Your task to perform on an android device: Go to calendar. Show me events next week Image 0: 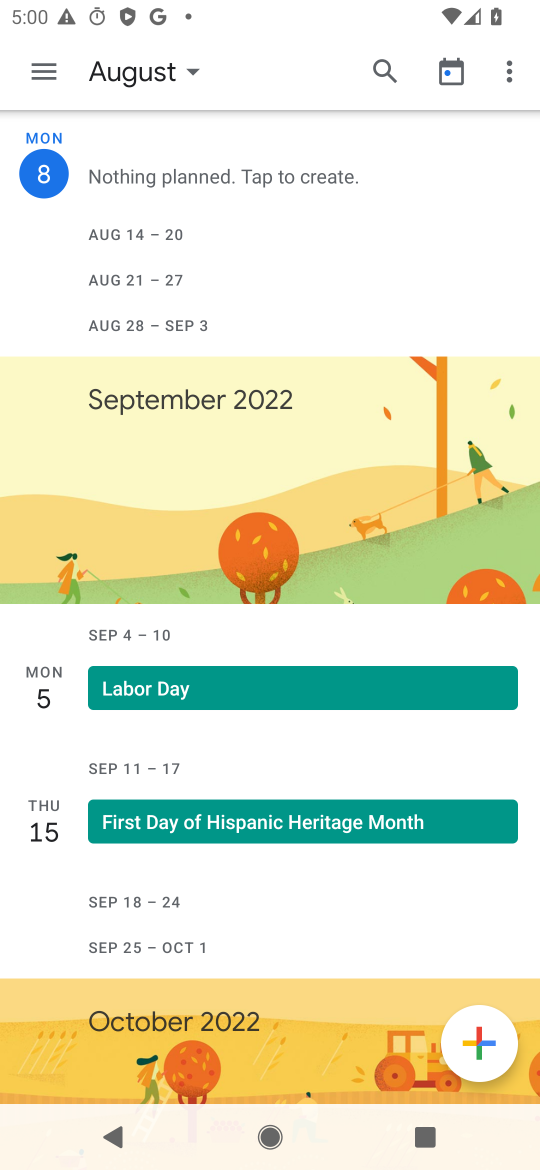
Step 0: click (149, 79)
Your task to perform on an android device: Go to calendar. Show me events next week Image 1: 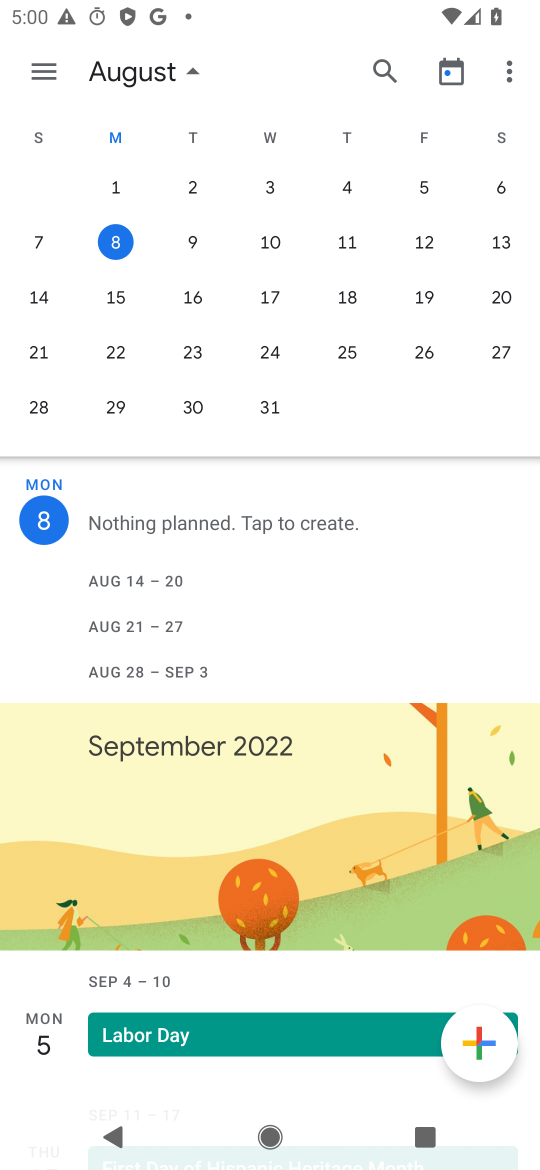
Step 1: click (33, 294)
Your task to perform on an android device: Go to calendar. Show me events next week Image 2: 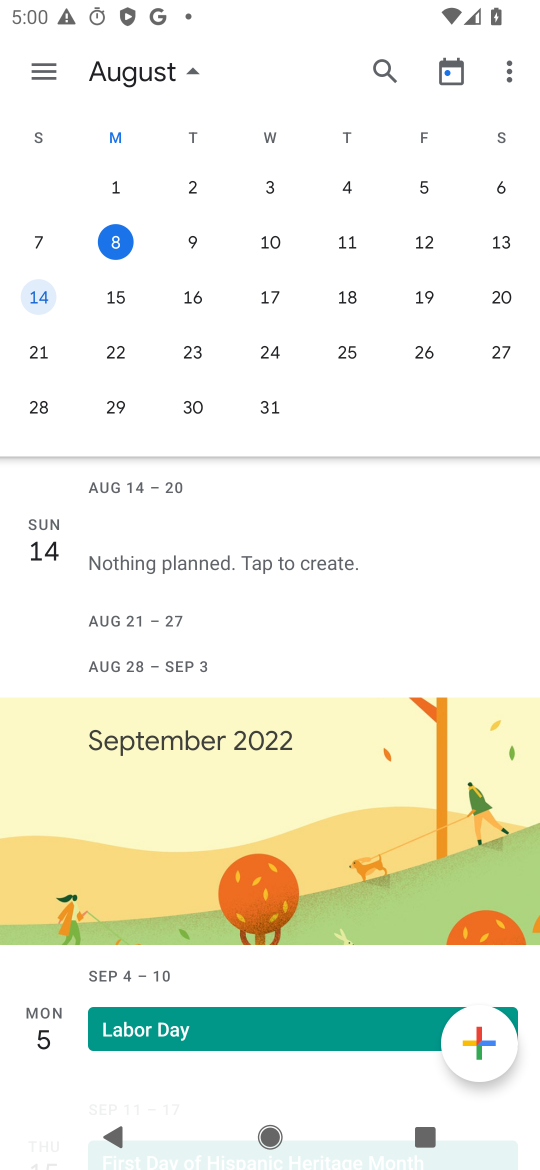
Step 2: click (40, 289)
Your task to perform on an android device: Go to calendar. Show me events next week Image 3: 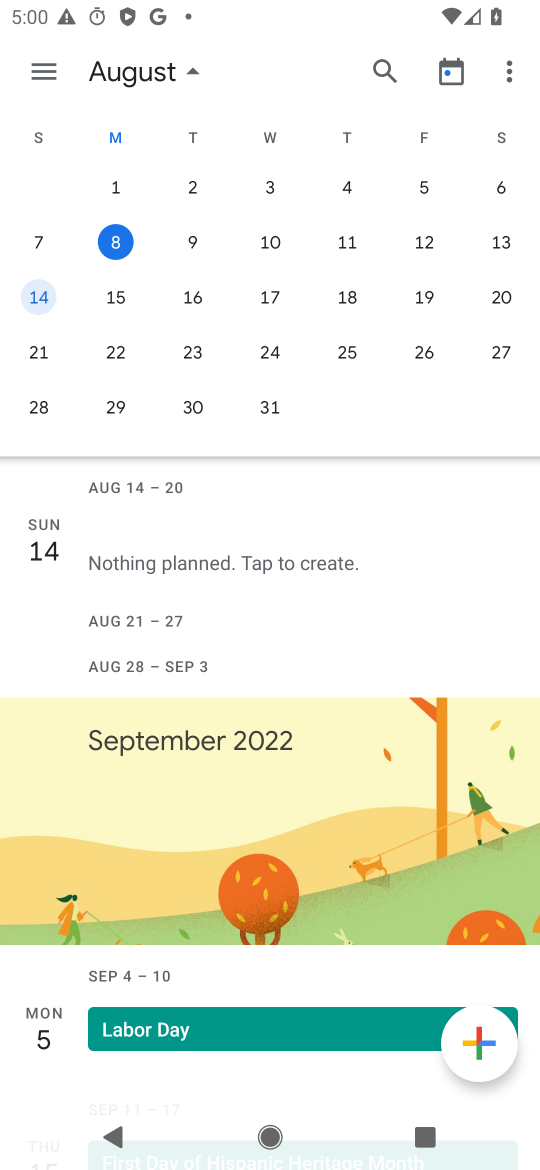
Step 3: click (44, 72)
Your task to perform on an android device: Go to calendar. Show me events next week Image 4: 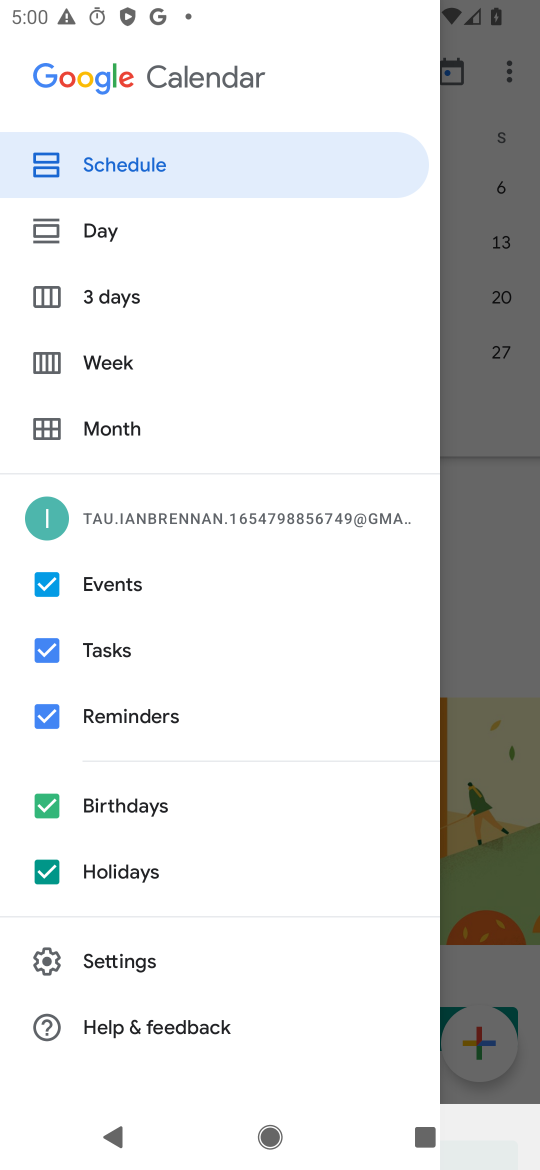
Step 4: click (116, 351)
Your task to perform on an android device: Go to calendar. Show me events next week Image 5: 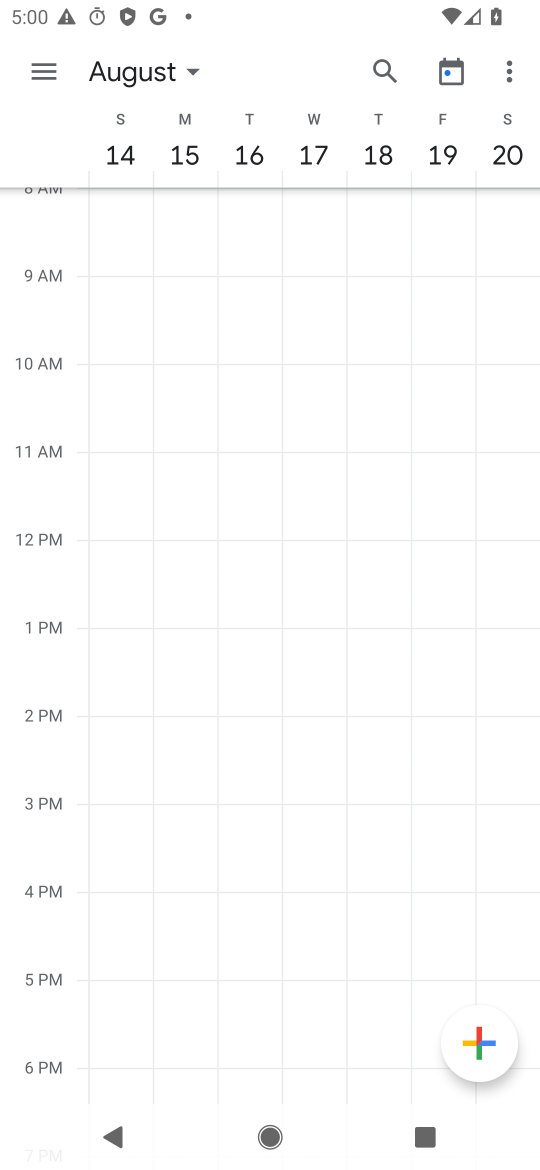
Step 5: click (54, 59)
Your task to perform on an android device: Go to calendar. Show me events next week Image 6: 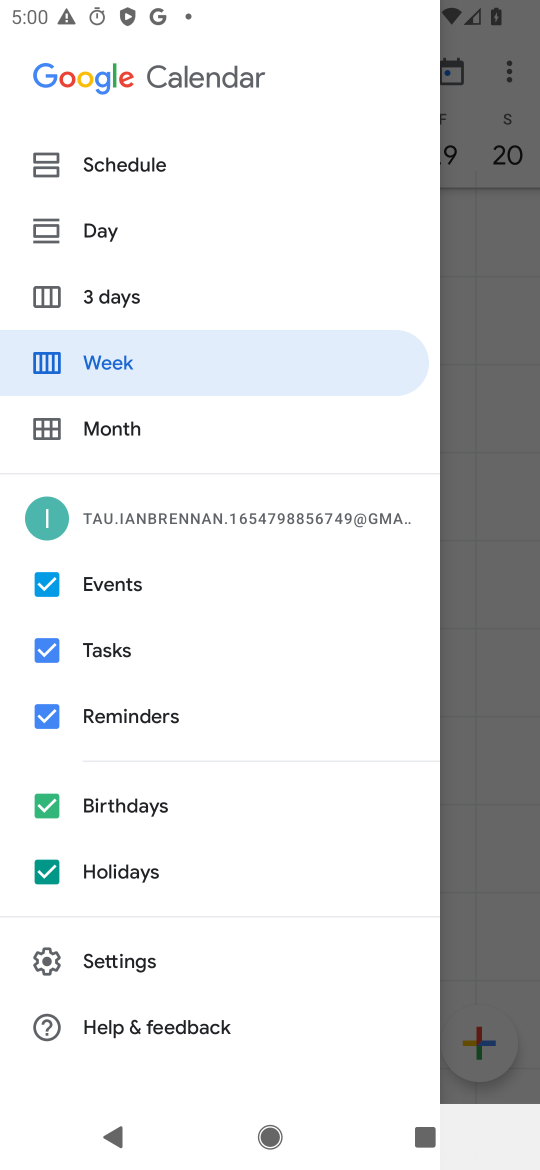
Step 6: click (142, 170)
Your task to perform on an android device: Go to calendar. Show me events next week Image 7: 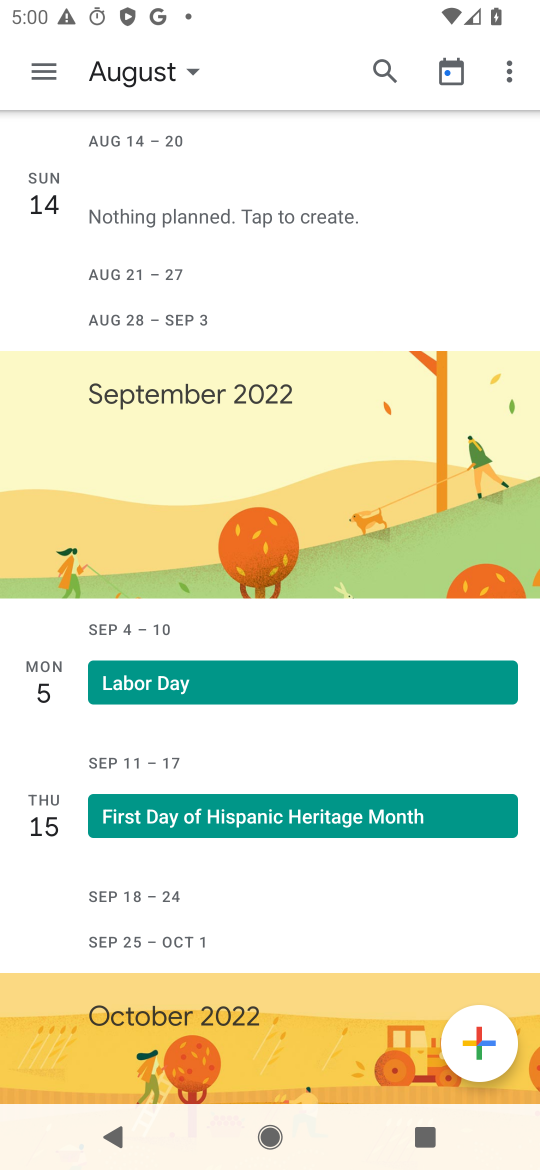
Step 7: task complete